Your task to perform on an android device: Show me popular games on the Play Store Image 0: 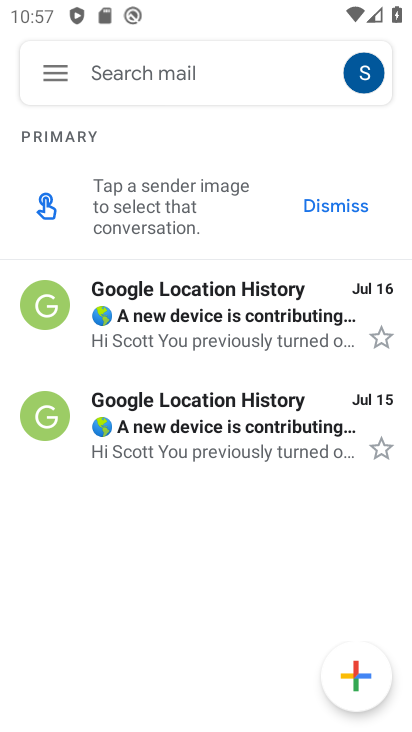
Step 0: press home button
Your task to perform on an android device: Show me popular games on the Play Store Image 1: 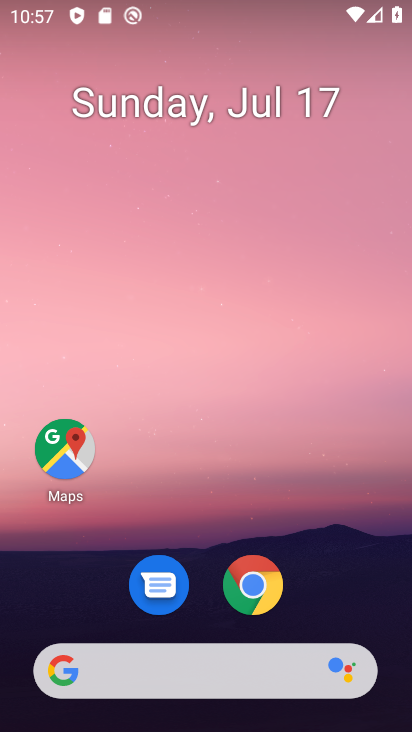
Step 1: drag from (214, 451) to (214, 1)
Your task to perform on an android device: Show me popular games on the Play Store Image 2: 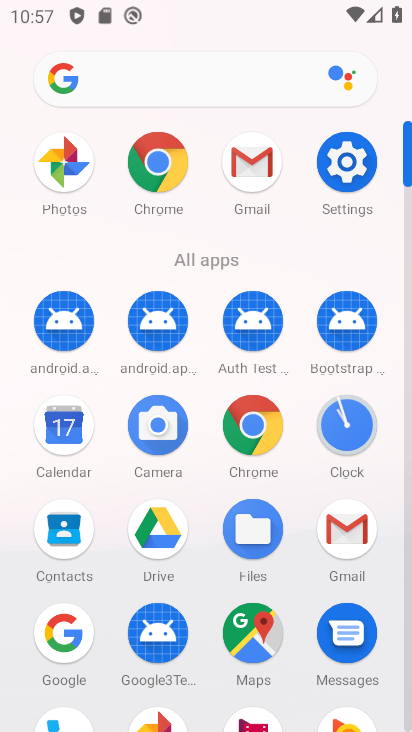
Step 2: drag from (201, 531) to (253, 26)
Your task to perform on an android device: Show me popular games on the Play Store Image 3: 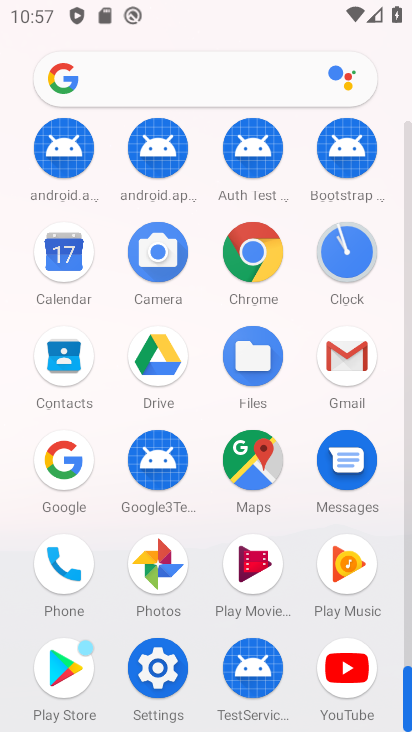
Step 3: click (51, 658)
Your task to perform on an android device: Show me popular games on the Play Store Image 4: 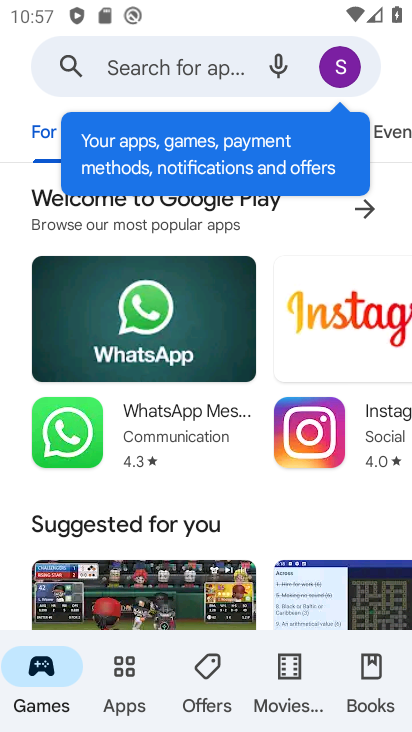
Step 4: drag from (238, 527) to (293, 161)
Your task to perform on an android device: Show me popular games on the Play Store Image 5: 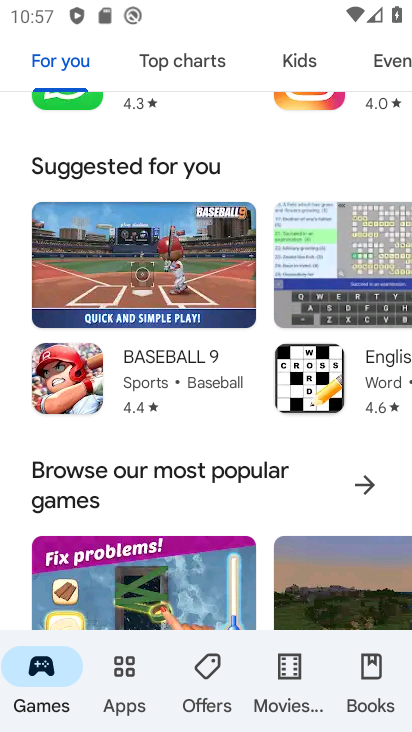
Step 5: click (359, 476)
Your task to perform on an android device: Show me popular games on the Play Store Image 6: 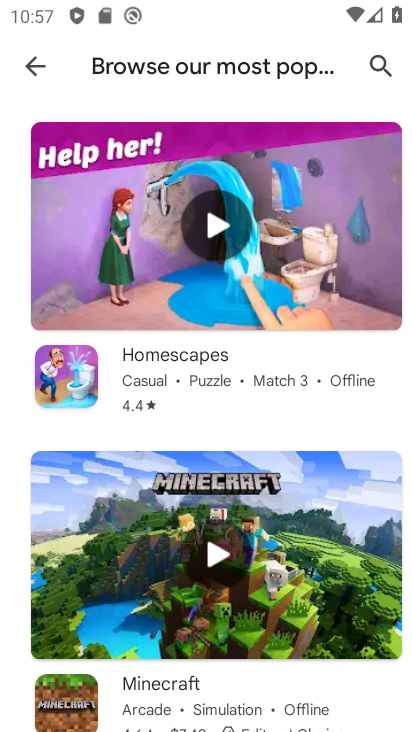
Step 6: task complete